Your task to perform on an android device: Go to Yahoo.com Image 0: 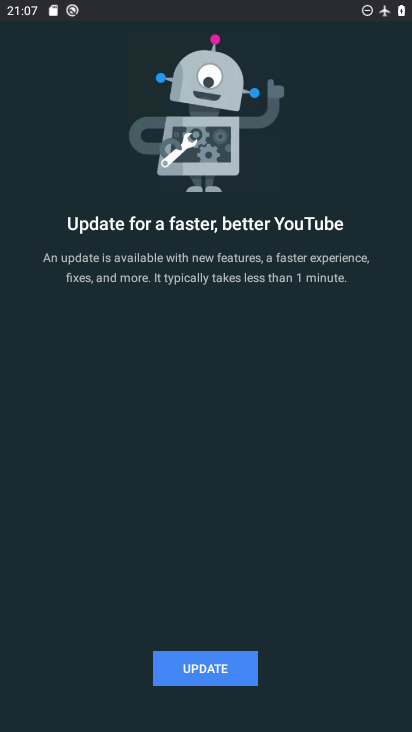
Step 0: press home button
Your task to perform on an android device: Go to Yahoo.com Image 1: 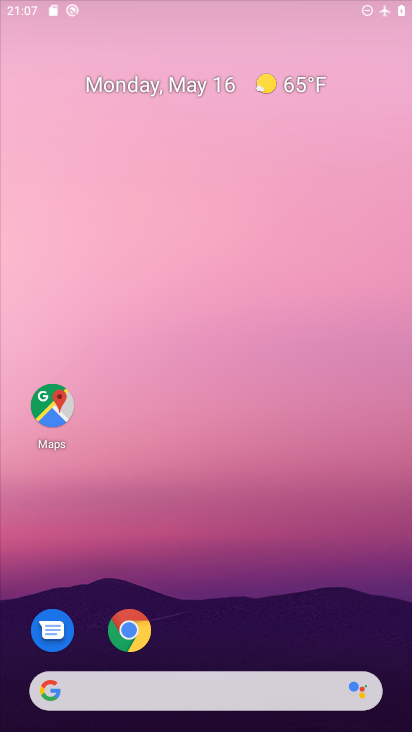
Step 1: drag from (215, 621) to (202, 303)
Your task to perform on an android device: Go to Yahoo.com Image 2: 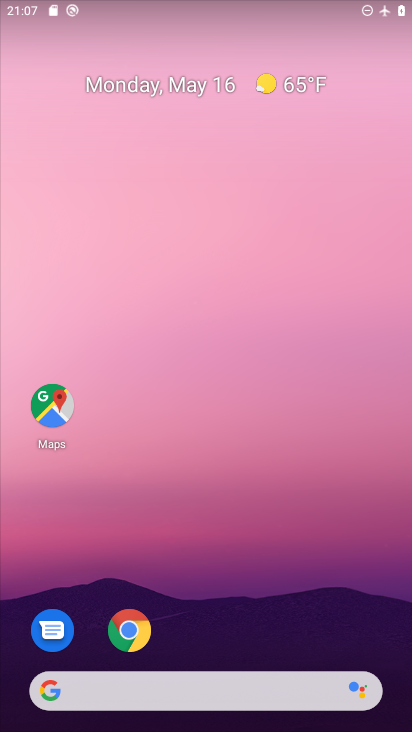
Step 2: click (130, 618)
Your task to perform on an android device: Go to Yahoo.com Image 3: 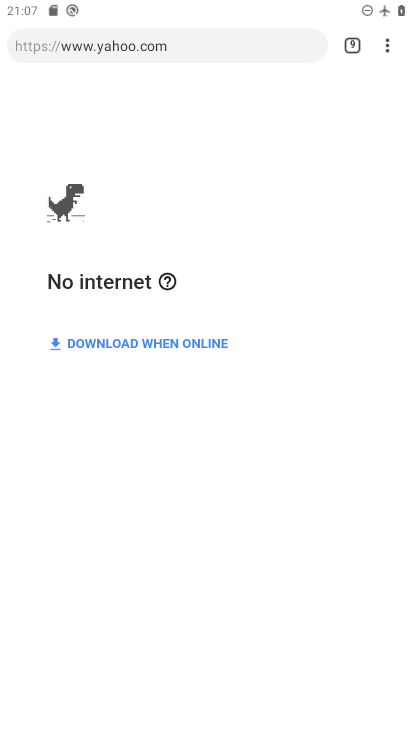
Step 3: task complete